Your task to perform on an android device: Open Amazon Image 0: 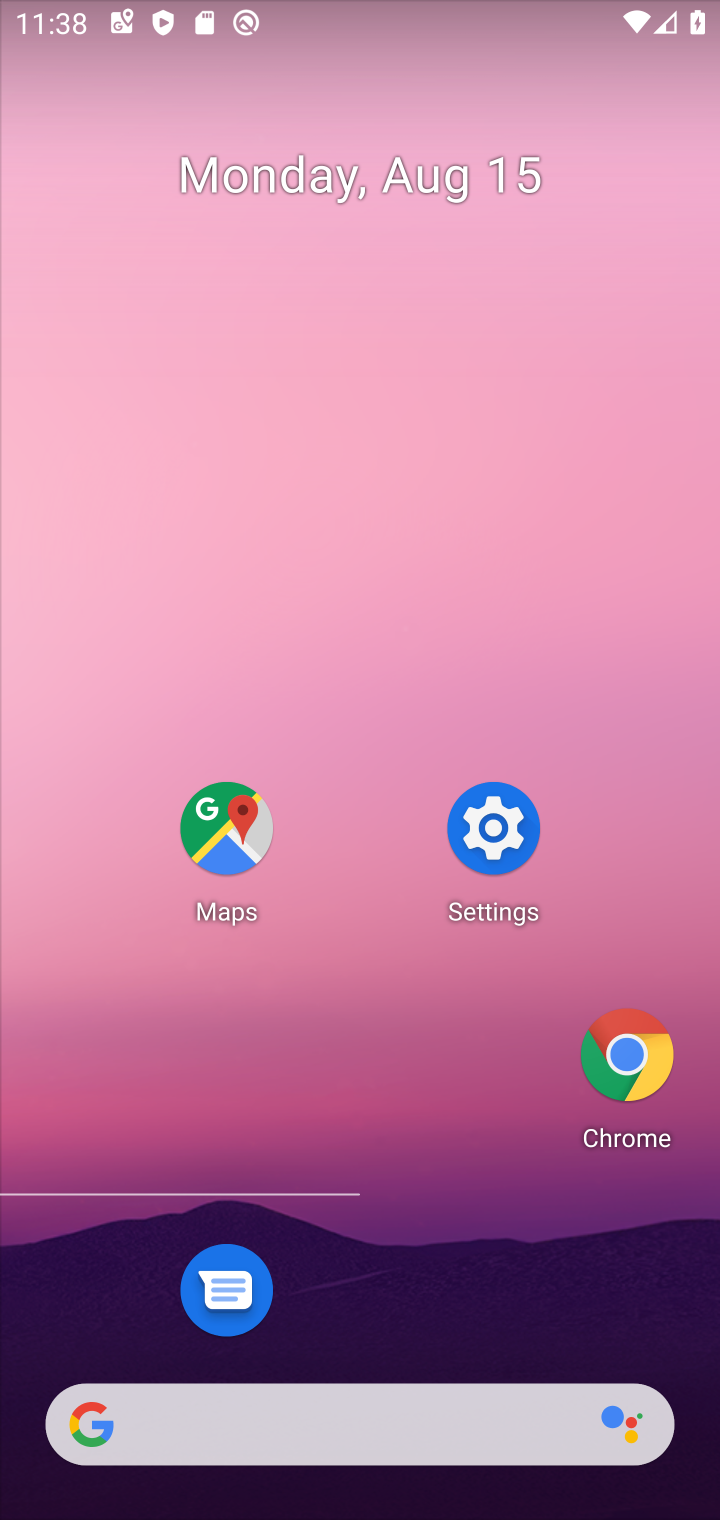
Step 0: click (609, 1072)
Your task to perform on an android device: Open Amazon Image 1: 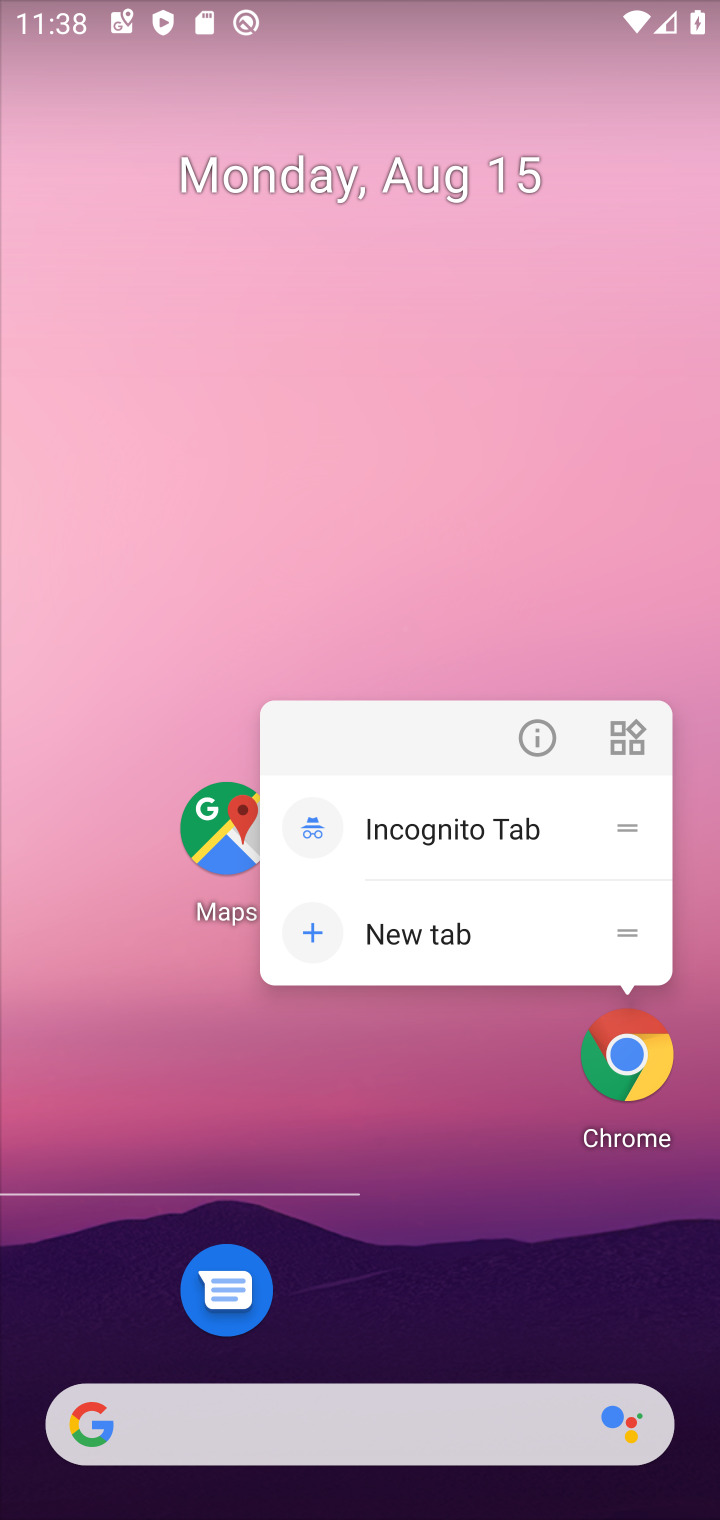
Step 1: click (624, 1050)
Your task to perform on an android device: Open Amazon Image 2: 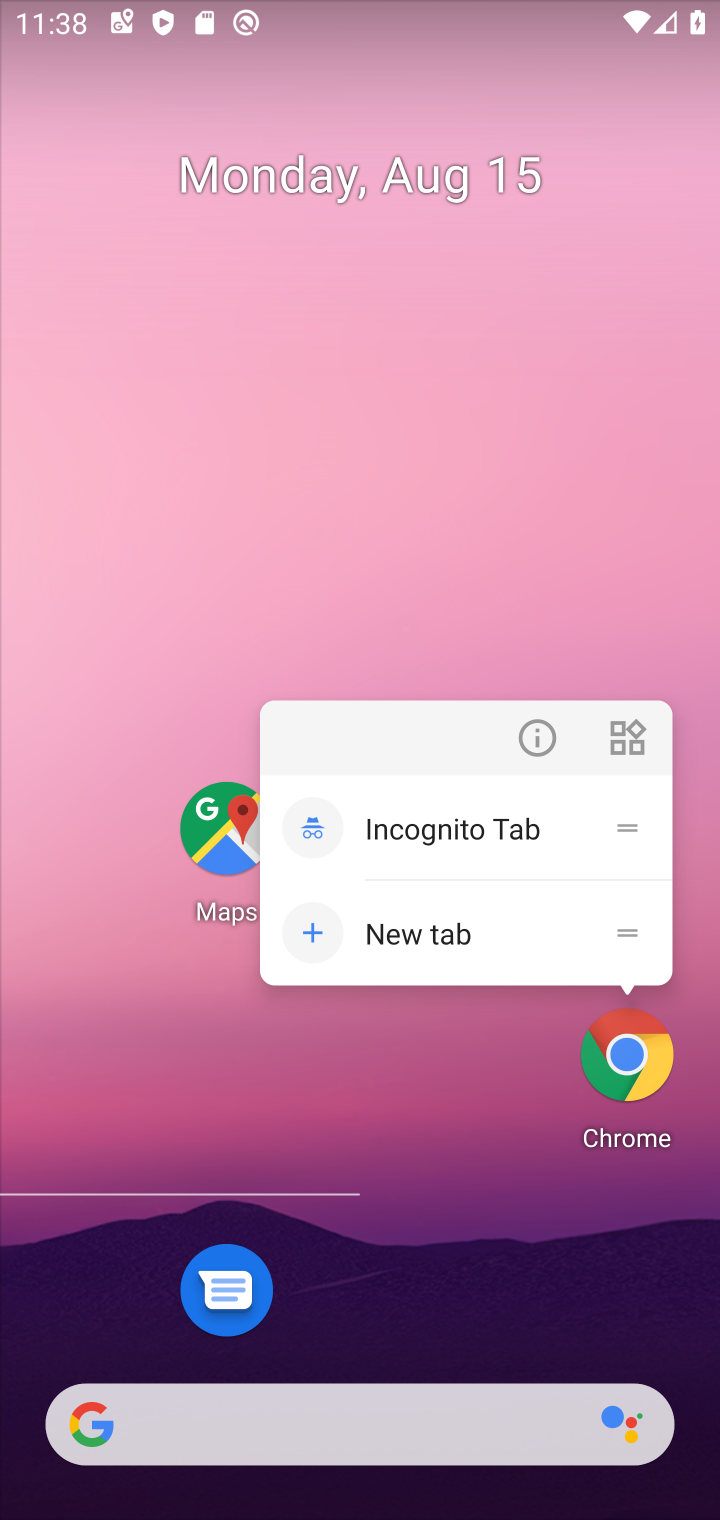
Step 2: click (626, 1043)
Your task to perform on an android device: Open Amazon Image 3: 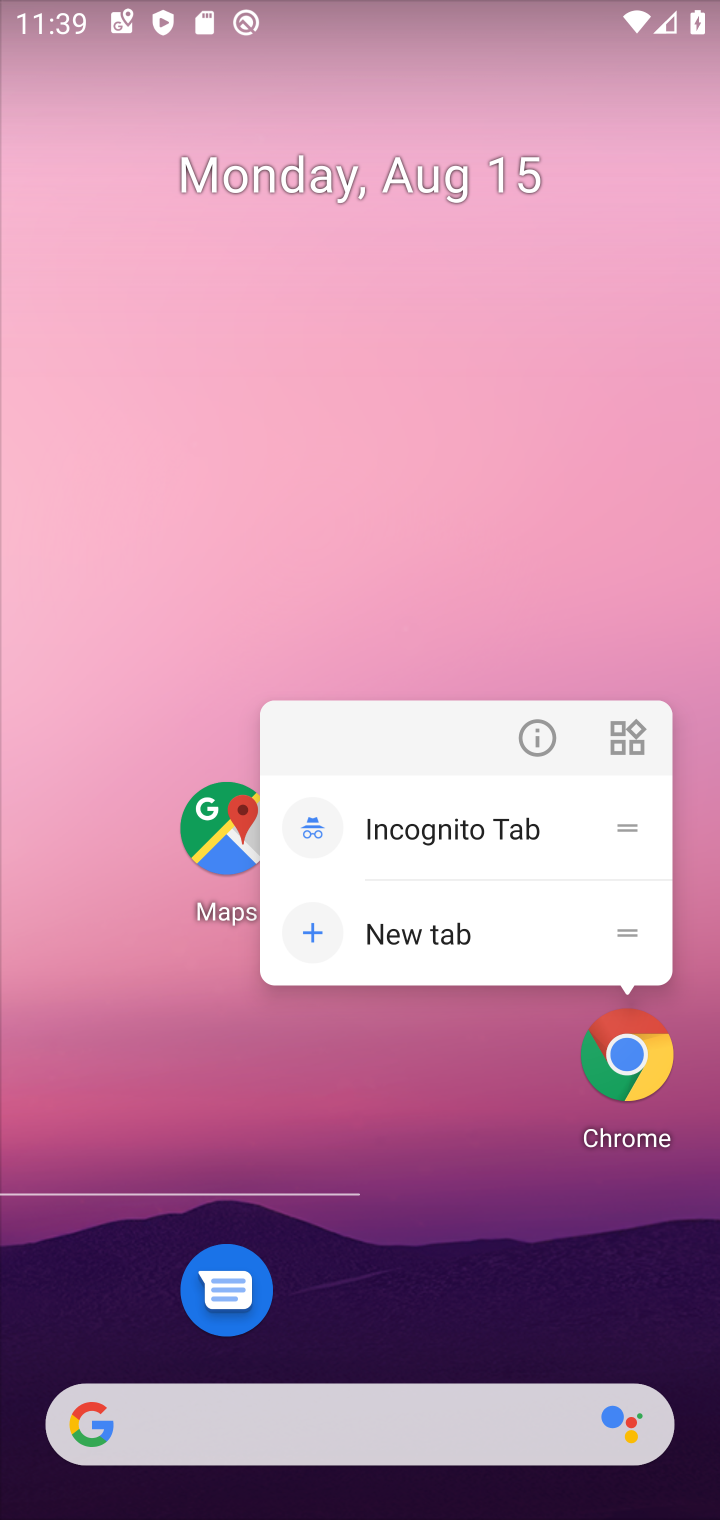
Step 3: click (626, 1045)
Your task to perform on an android device: Open Amazon Image 4: 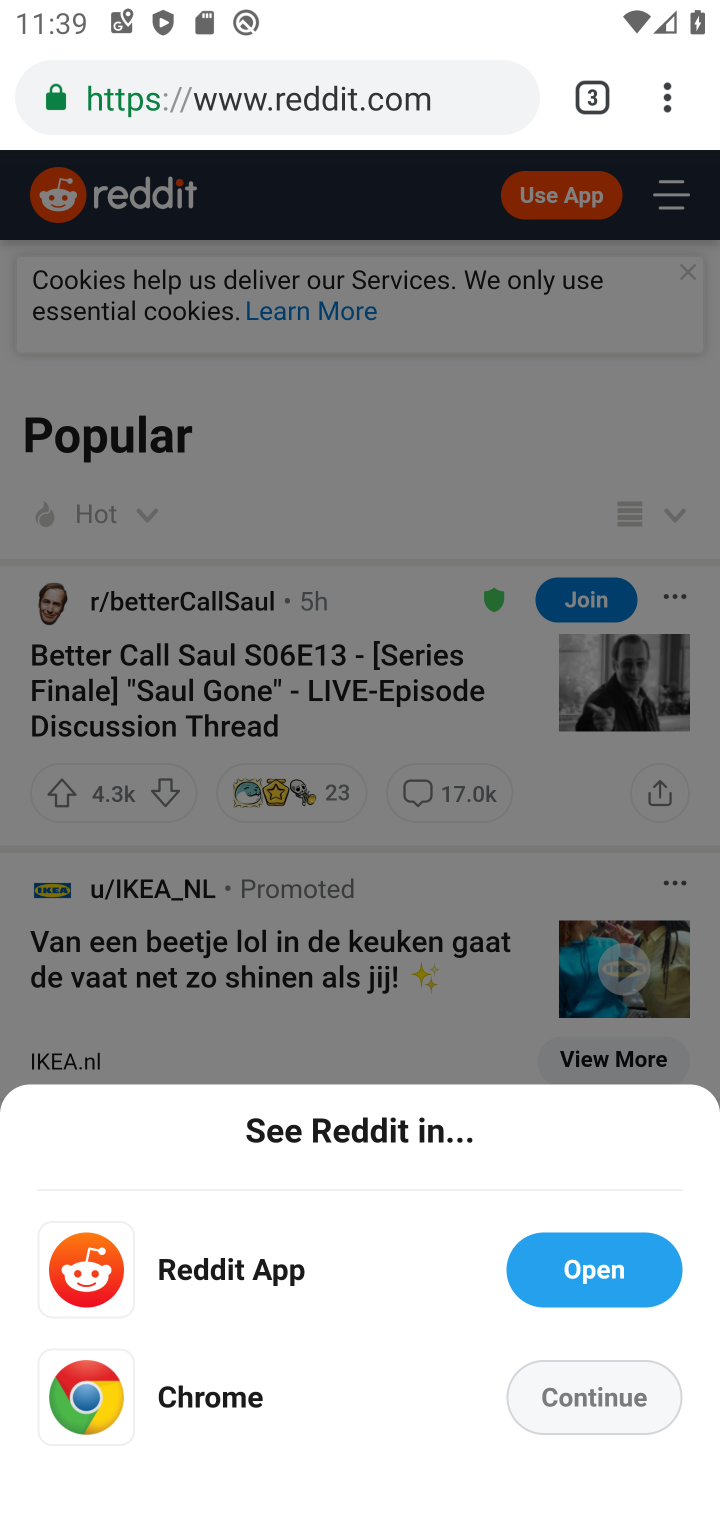
Step 4: drag from (668, 103) to (496, 188)
Your task to perform on an android device: Open Amazon Image 5: 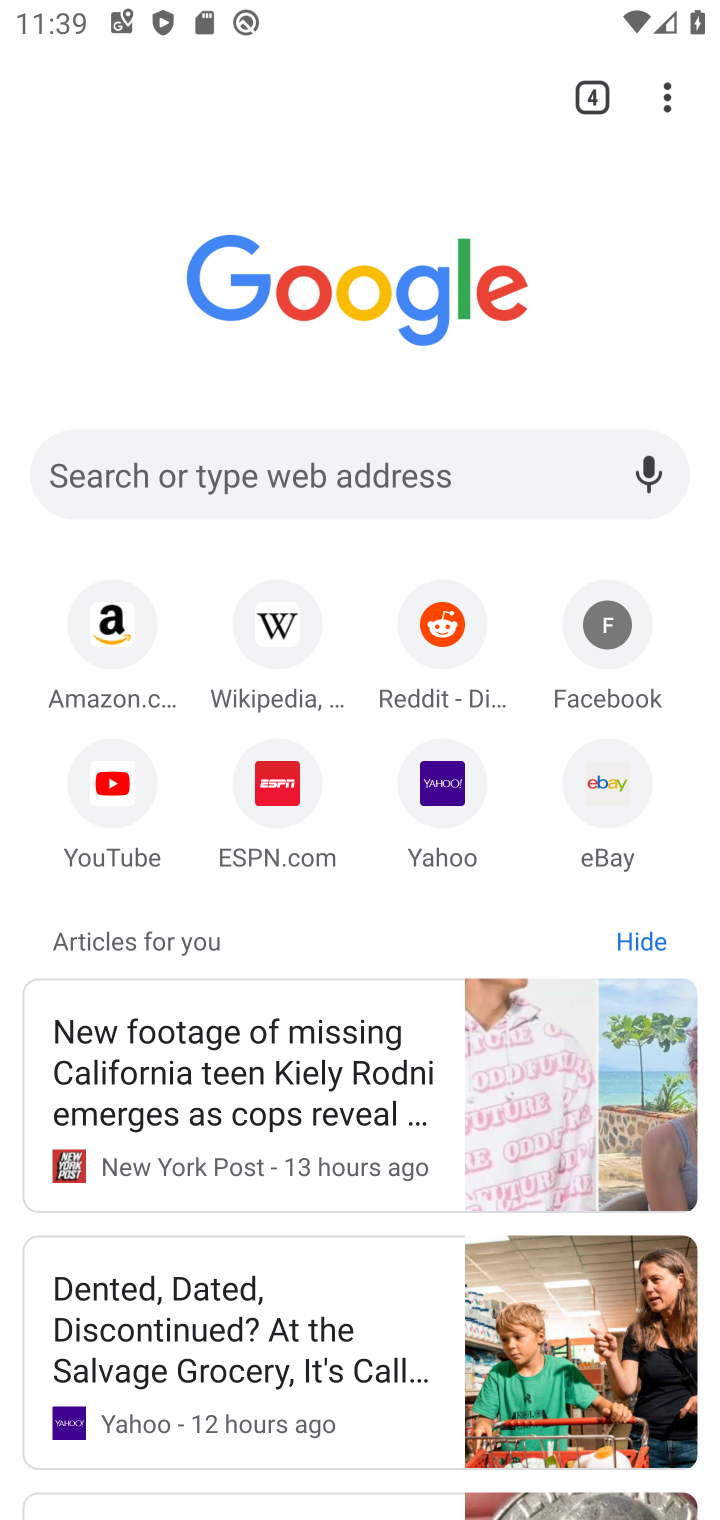
Step 5: click (107, 606)
Your task to perform on an android device: Open Amazon Image 6: 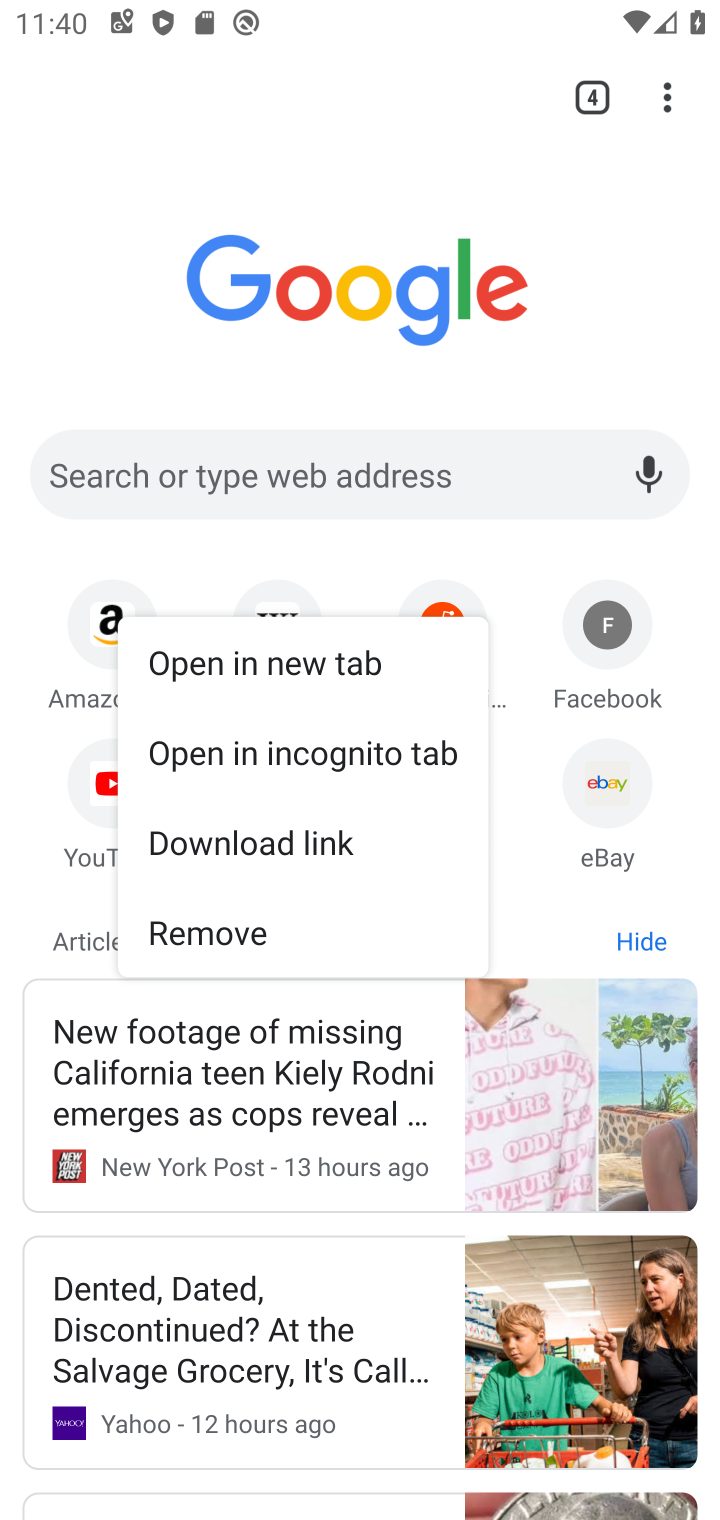
Step 6: click (109, 622)
Your task to perform on an android device: Open Amazon Image 7: 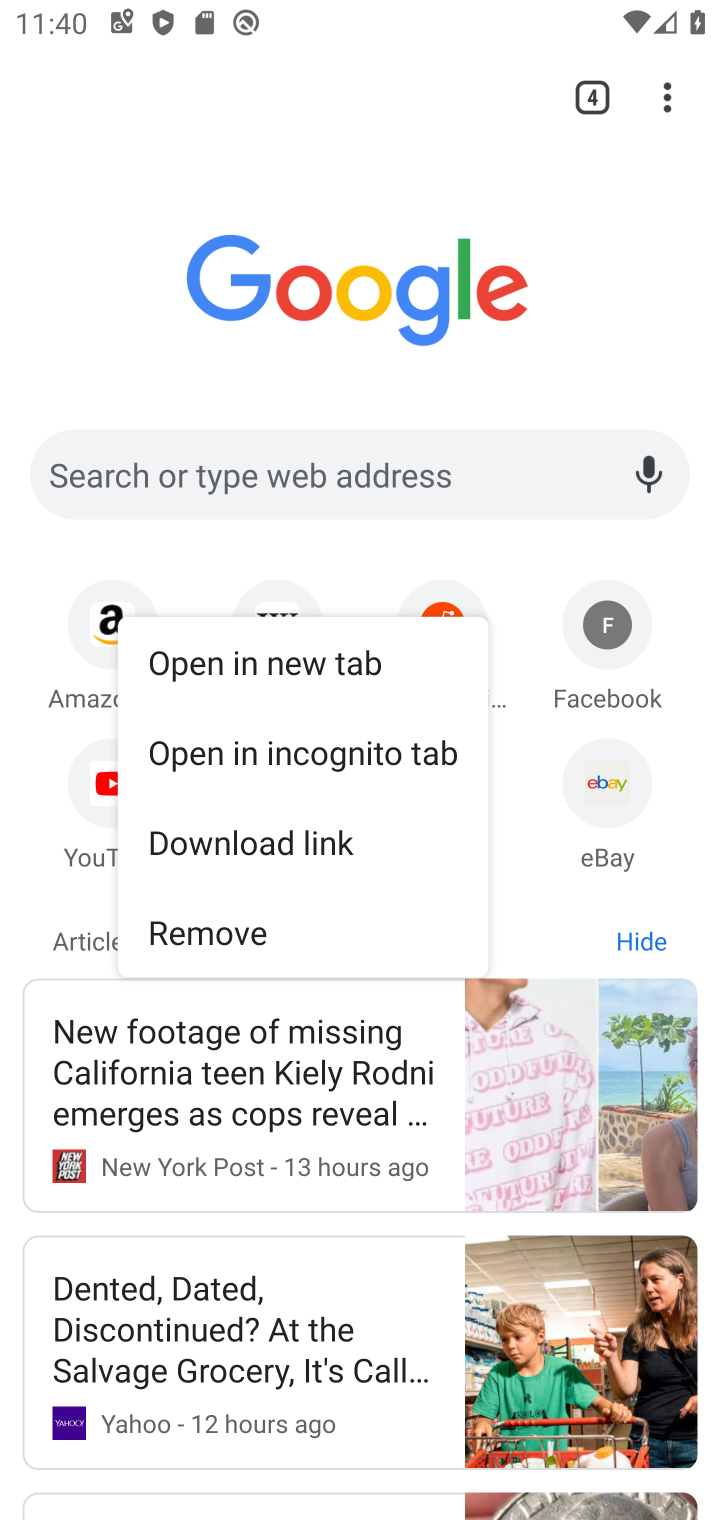
Step 7: click (109, 624)
Your task to perform on an android device: Open Amazon Image 8: 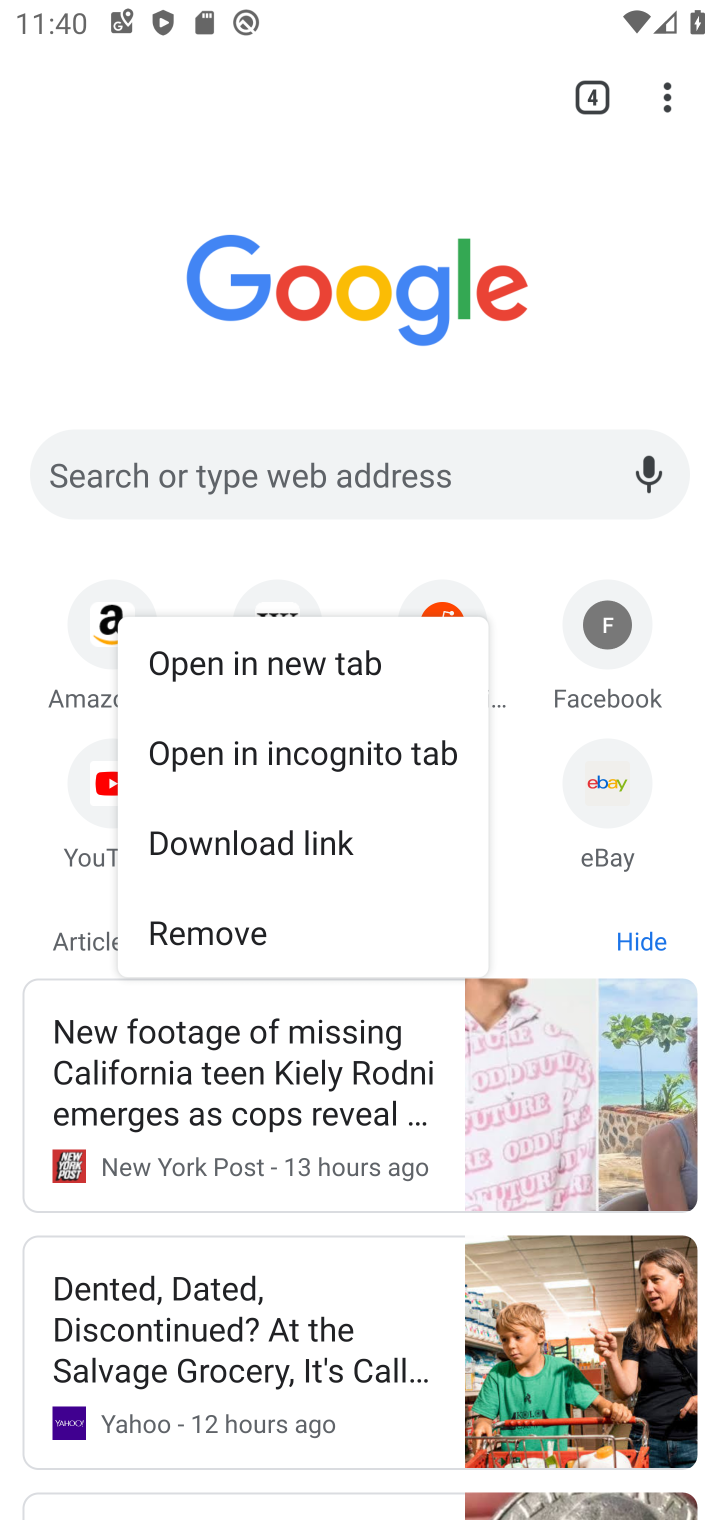
Step 8: click (100, 629)
Your task to perform on an android device: Open Amazon Image 9: 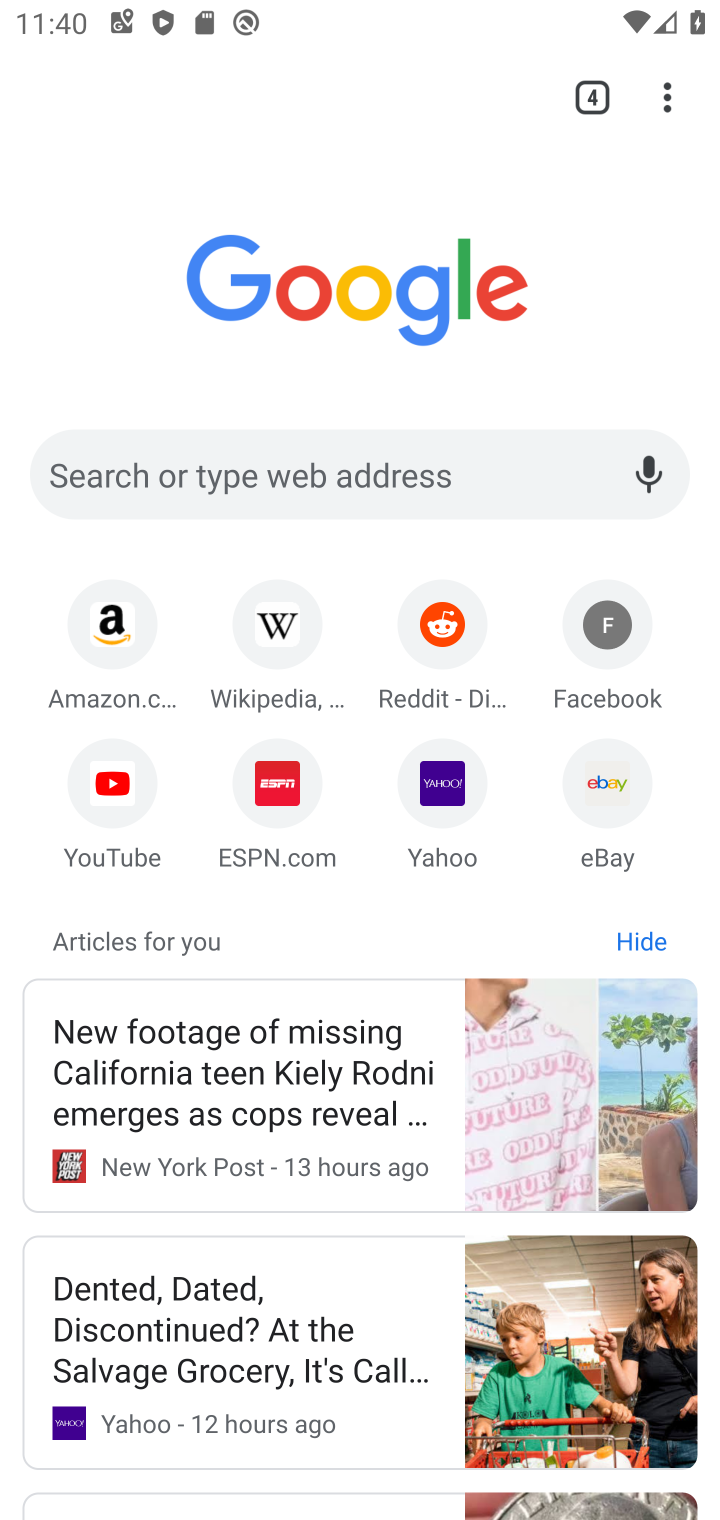
Step 9: click (105, 622)
Your task to perform on an android device: Open Amazon Image 10: 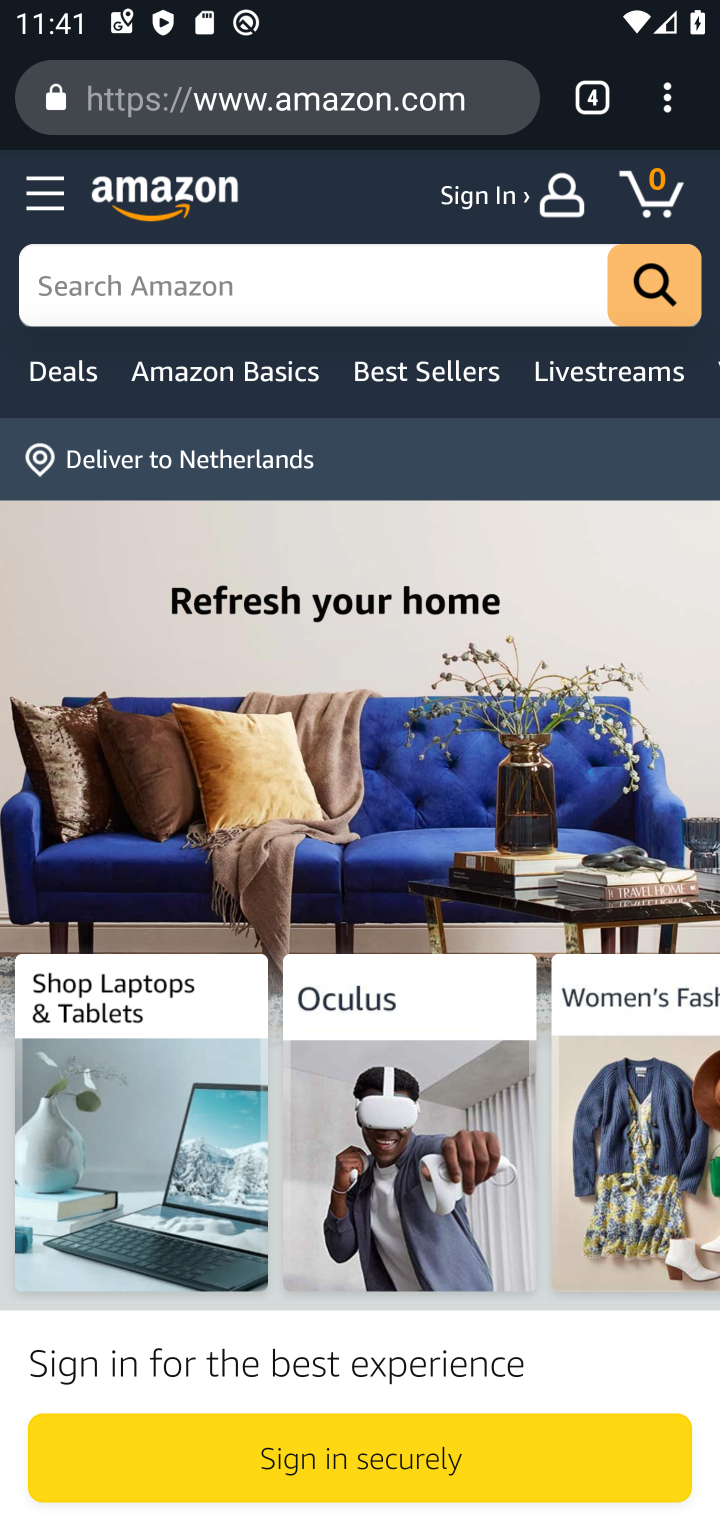
Step 10: task complete